Your task to perform on an android device: delete location history Image 0: 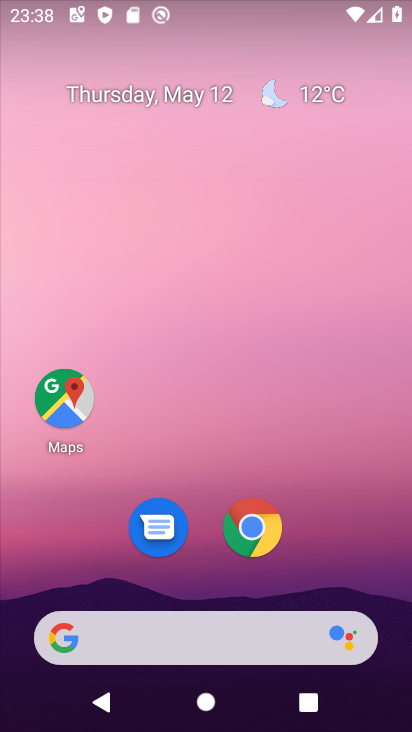
Step 0: drag from (68, 648) to (375, 209)
Your task to perform on an android device: delete location history Image 1: 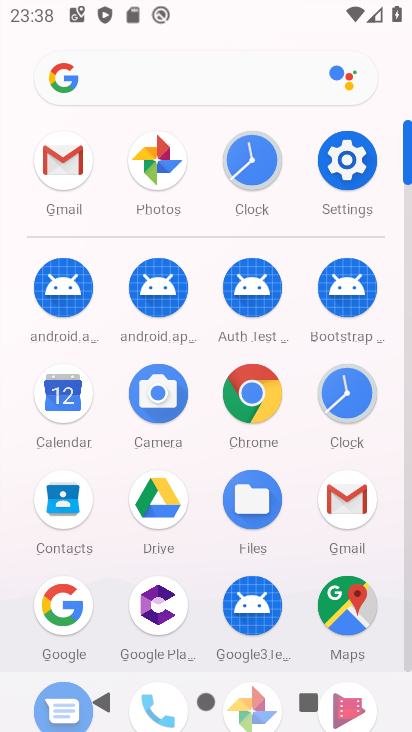
Step 1: click (337, 151)
Your task to perform on an android device: delete location history Image 2: 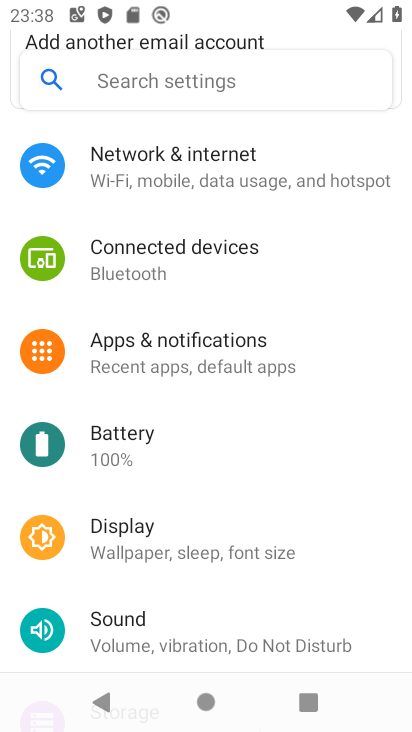
Step 2: drag from (145, 624) to (276, 360)
Your task to perform on an android device: delete location history Image 3: 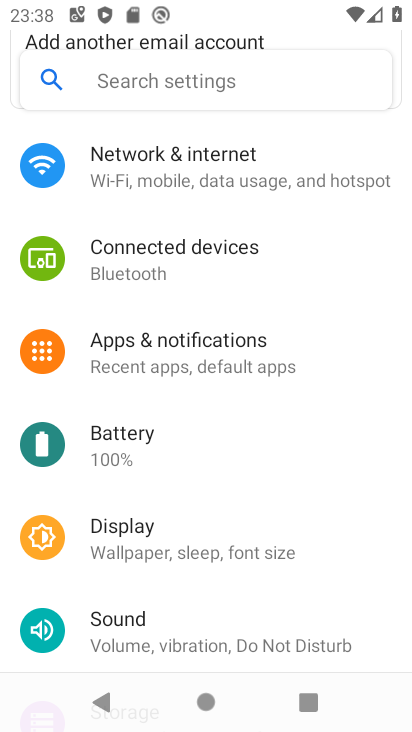
Step 3: drag from (26, 646) to (384, 223)
Your task to perform on an android device: delete location history Image 4: 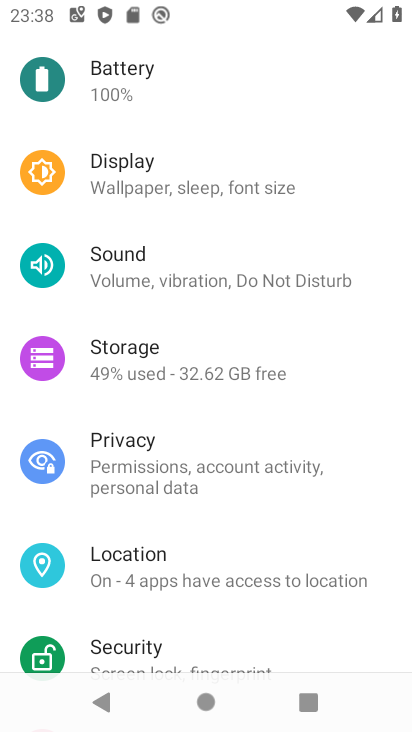
Step 4: click (153, 538)
Your task to perform on an android device: delete location history Image 5: 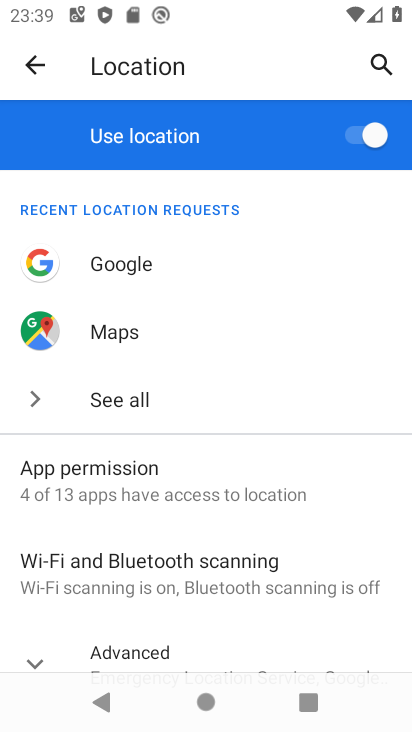
Step 5: drag from (218, 637) to (350, 268)
Your task to perform on an android device: delete location history Image 6: 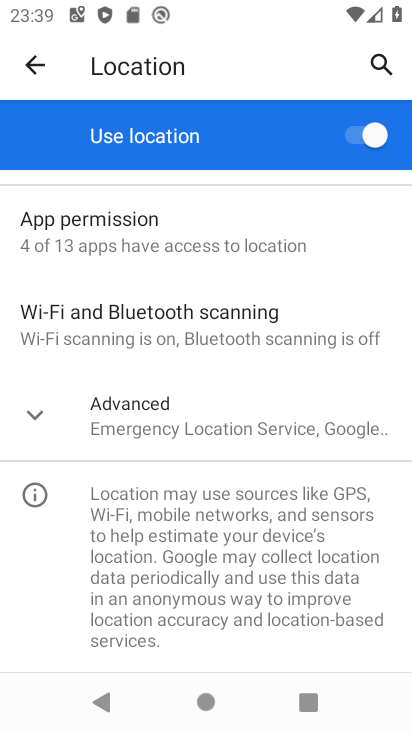
Step 6: click (243, 419)
Your task to perform on an android device: delete location history Image 7: 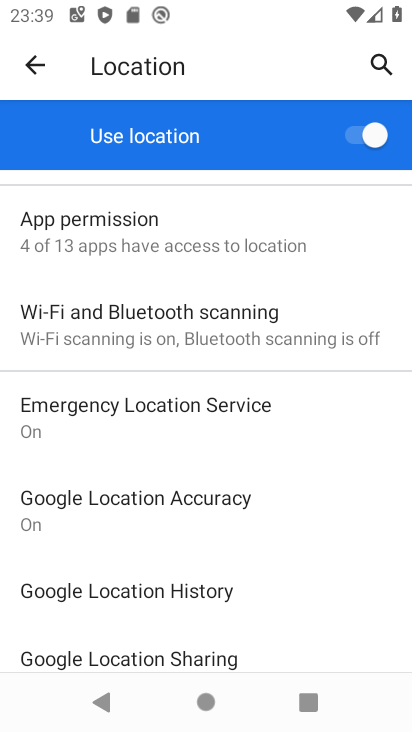
Step 7: click (108, 593)
Your task to perform on an android device: delete location history Image 8: 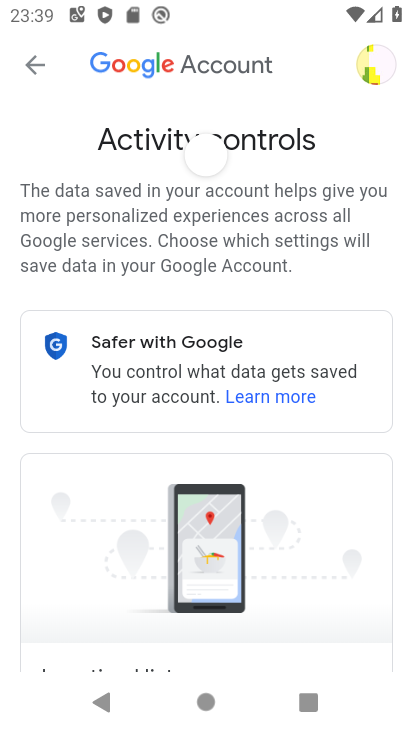
Step 8: drag from (92, 640) to (364, 202)
Your task to perform on an android device: delete location history Image 9: 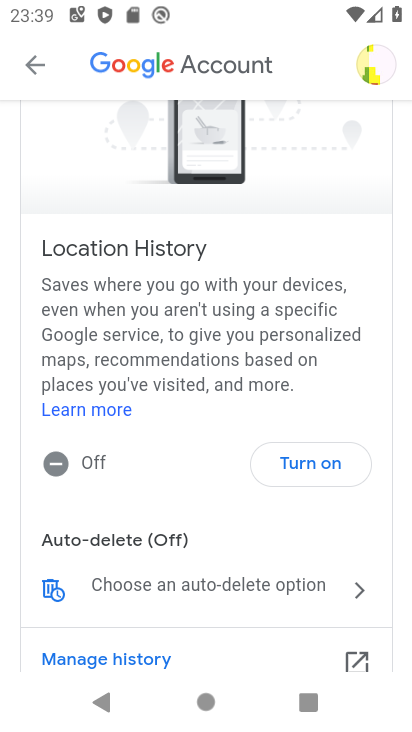
Step 9: click (314, 458)
Your task to perform on an android device: delete location history Image 10: 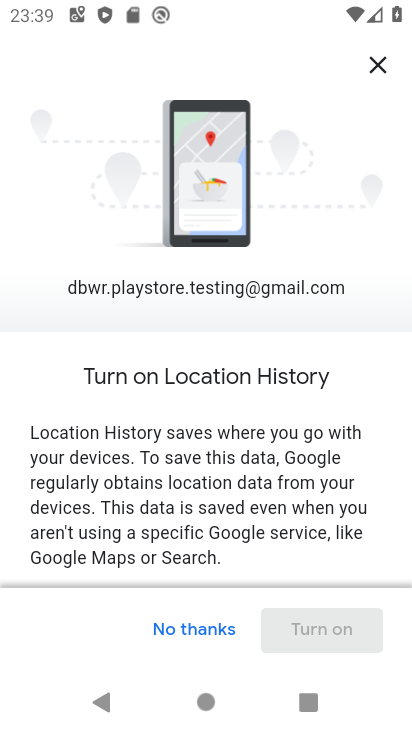
Step 10: drag from (63, 528) to (404, 72)
Your task to perform on an android device: delete location history Image 11: 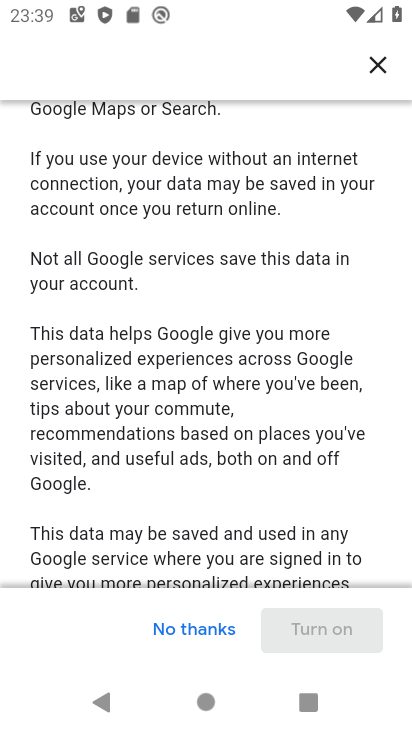
Step 11: drag from (153, 582) to (409, 126)
Your task to perform on an android device: delete location history Image 12: 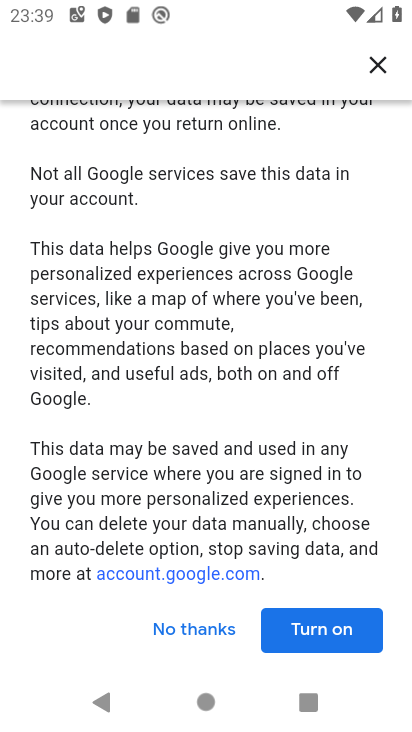
Step 12: click (296, 630)
Your task to perform on an android device: delete location history Image 13: 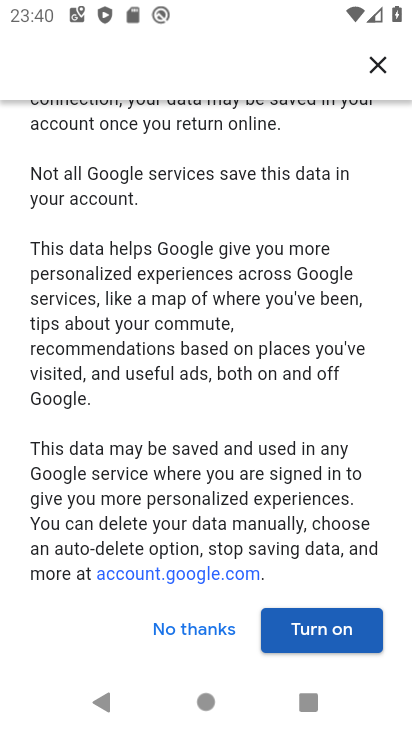
Step 13: click (353, 625)
Your task to perform on an android device: delete location history Image 14: 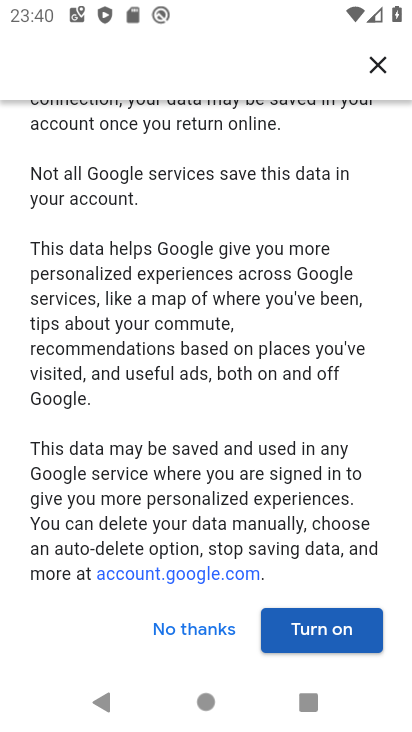
Step 14: click (300, 628)
Your task to perform on an android device: delete location history Image 15: 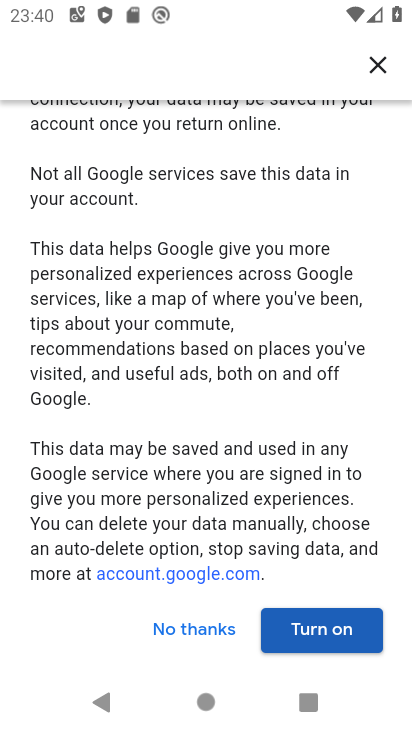
Step 15: click (298, 650)
Your task to perform on an android device: delete location history Image 16: 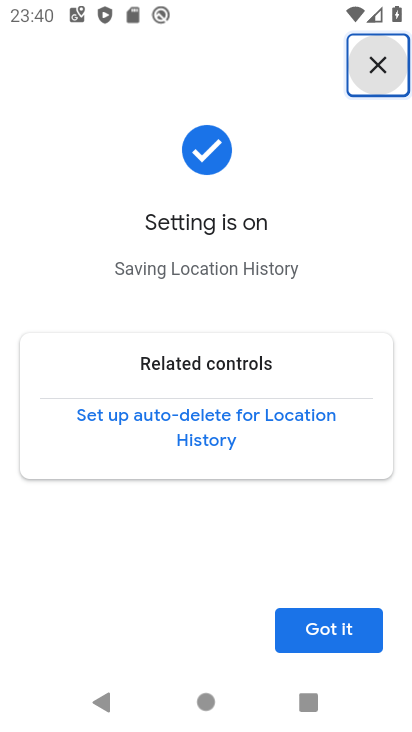
Step 16: click (337, 632)
Your task to perform on an android device: delete location history Image 17: 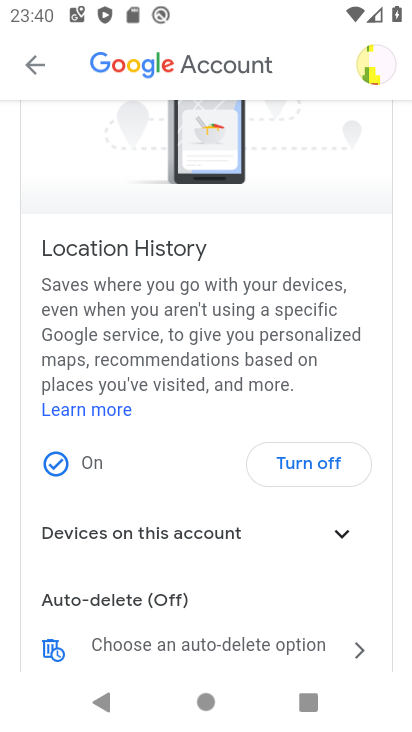
Step 17: task complete